Your task to perform on an android device: delete a single message in the gmail app Image 0: 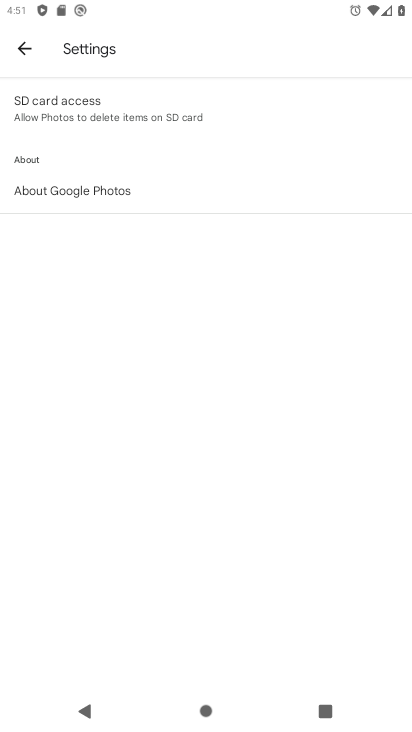
Step 0: press home button
Your task to perform on an android device: delete a single message in the gmail app Image 1: 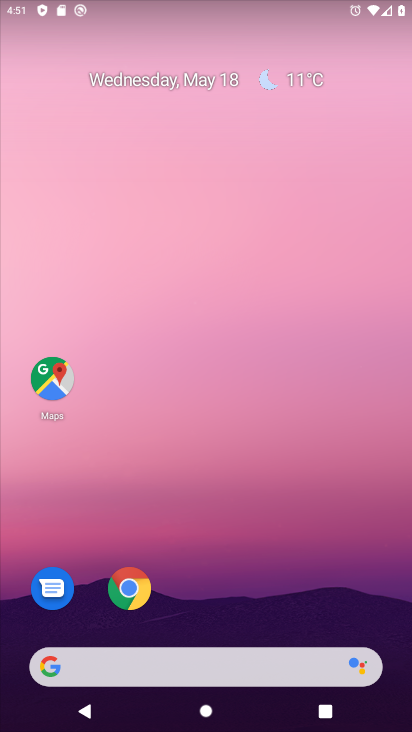
Step 1: drag from (300, 601) to (244, 118)
Your task to perform on an android device: delete a single message in the gmail app Image 2: 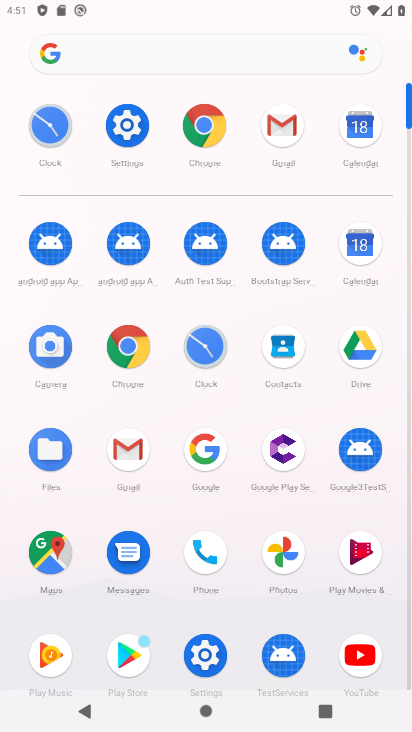
Step 2: click (295, 130)
Your task to perform on an android device: delete a single message in the gmail app Image 3: 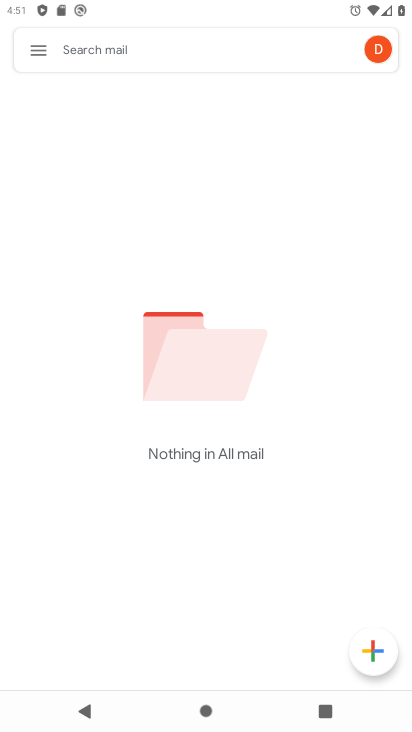
Step 3: click (26, 41)
Your task to perform on an android device: delete a single message in the gmail app Image 4: 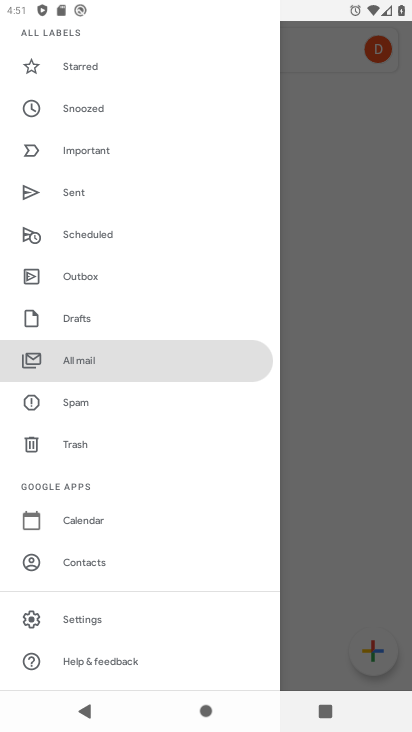
Step 4: click (85, 359)
Your task to perform on an android device: delete a single message in the gmail app Image 5: 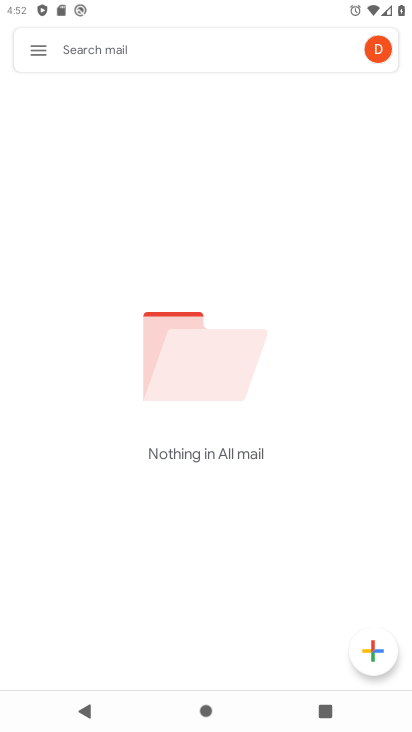
Step 5: task complete